Your task to perform on an android device: Show me popular games on the Play Store Image 0: 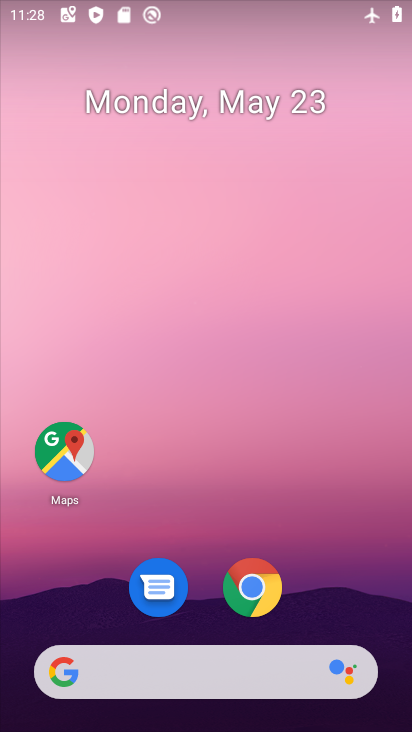
Step 0: drag from (393, 626) to (280, 7)
Your task to perform on an android device: Show me popular games on the Play Store Image 1: 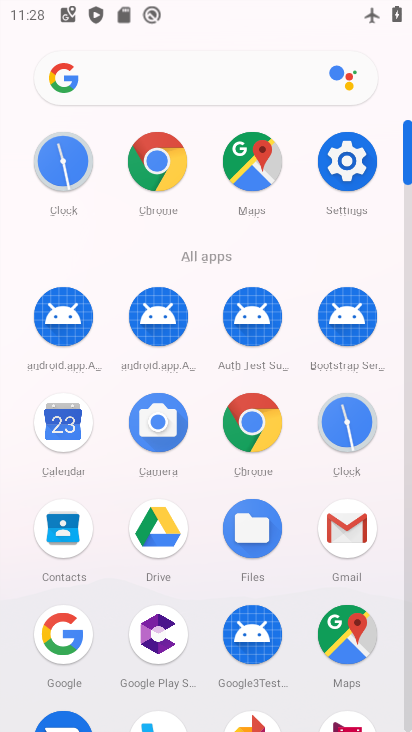
Step 1: drag from (393, 661) to (389, 461)
Your task to perform on an android device: Show me popular games on the Play Store Image 2: 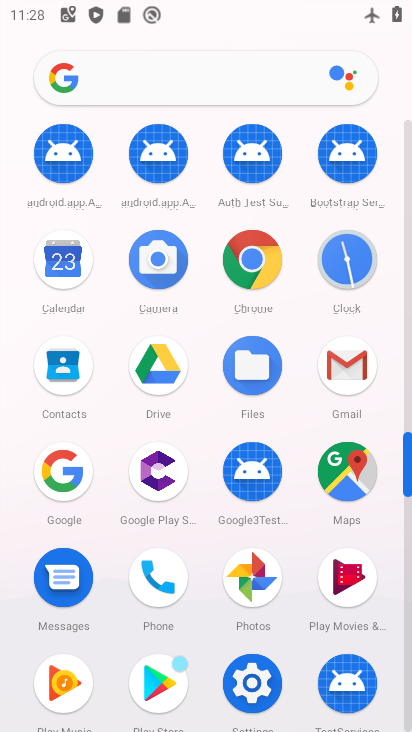
Step 2: click (171, 687)
Your task to perform on an android device: Show me popular games on the Play Store Image 3: 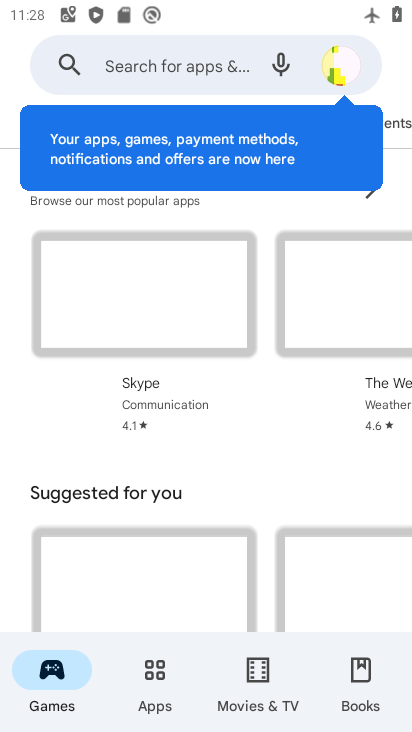
Step 3: drag from (262, 430) to (282, 582)
Your task to perform on an android device: Show me popular games on the Play Store Image 4: 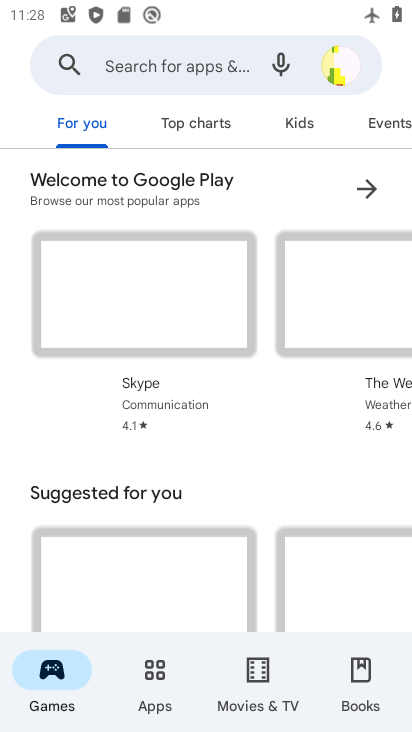
Step 4: click (206, 194)
Your task to perform on an android device: Show me popular games on the Play Store Image 5: 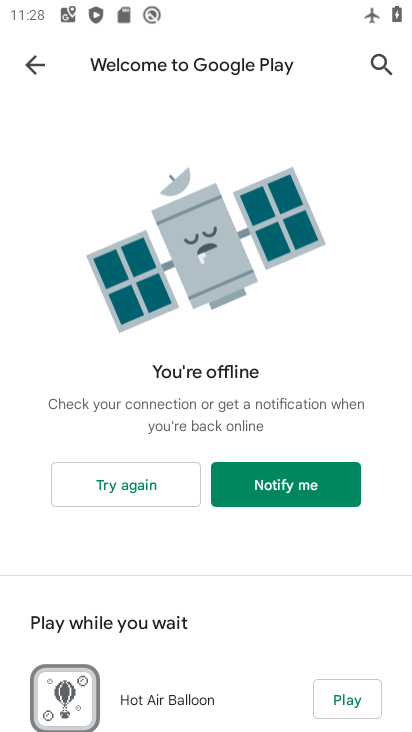
Step 5: task complete